Your task to perform on an android device: open sync settings in chrome Image 0: 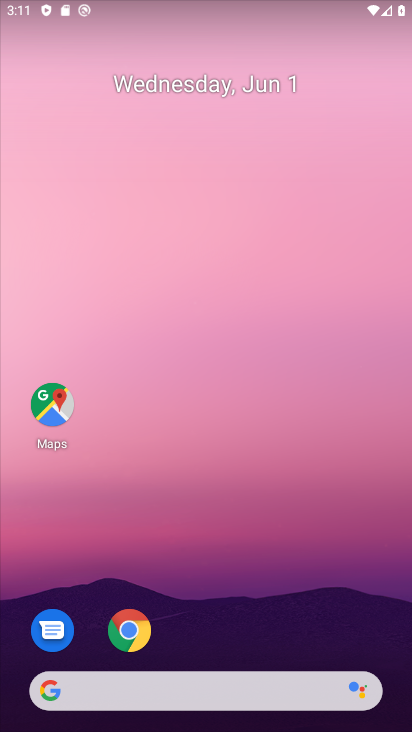
Step 0: press home button
Your task to perform on an android device: open sync settings in chrome Image 1: 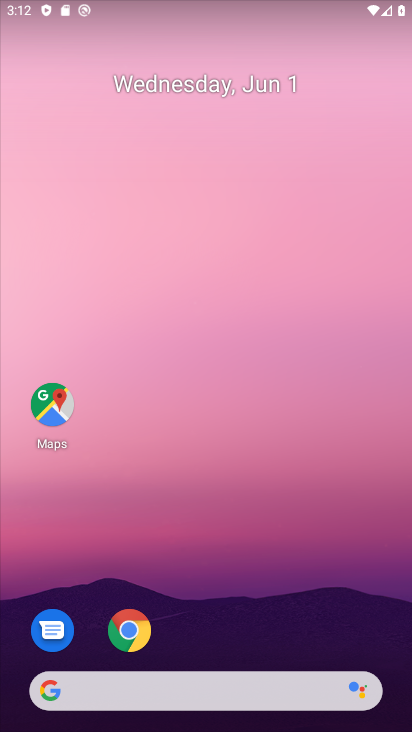
Step 1: click (133, 637)
Your task to perform on an android device: open sync settings in chrome Image 2: 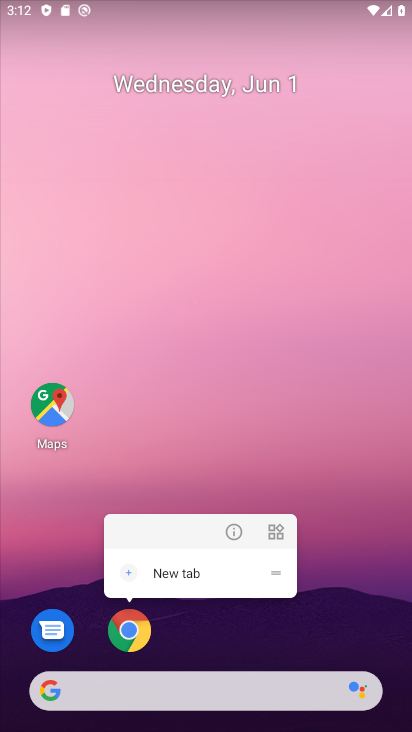
Step 2: click (133, 631)
Your task to perform on an android device: open sync settings in chrome Image 3: 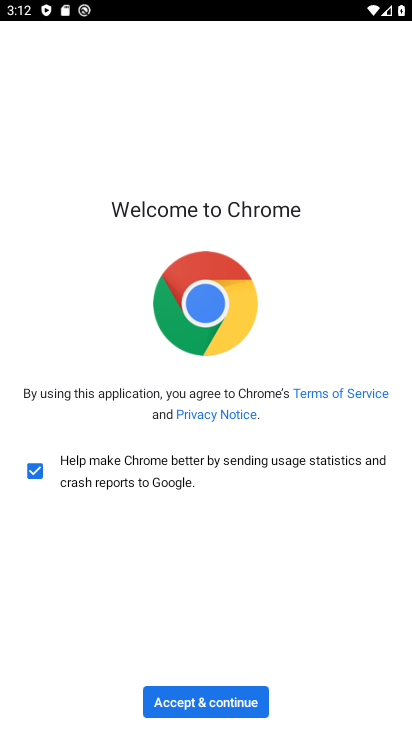
Step 3: click (195, 709)
Your task to perform on an android device: open sync settings in chrome Image 4: 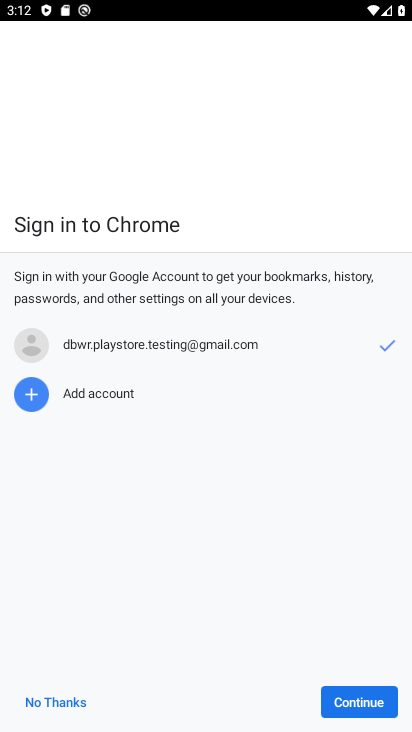
Step 4: click (366, 693)
Your task to perform on an android device: open sync settings in chrome Image 5: 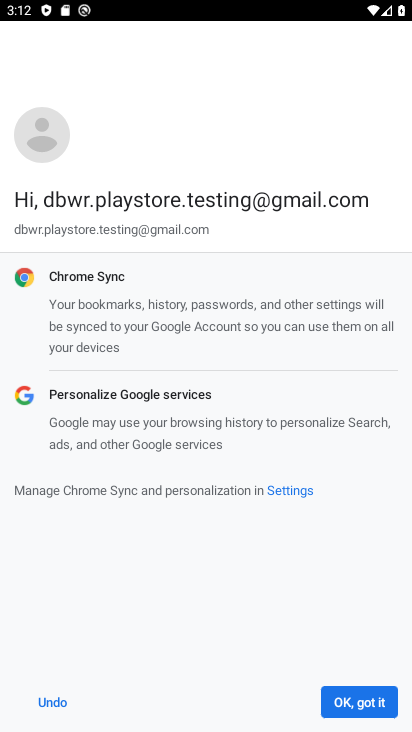
Step 5: click (363, 699)
Your task to perform on an android device: open sync settings in chrome Image 6: 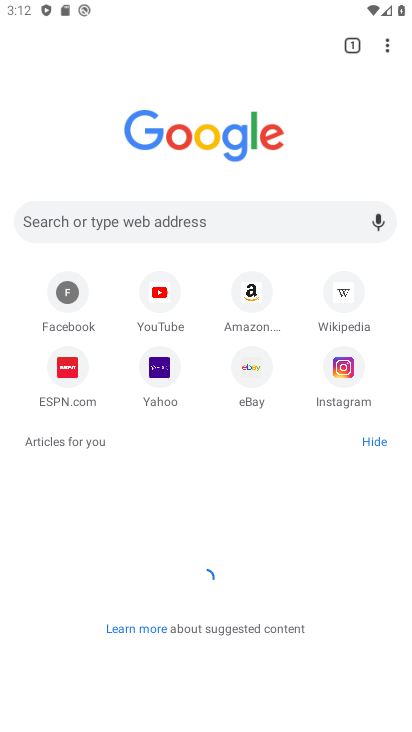
Step 6: drag from (388, 47) to (218, 382)
Your task to perform on an android device: open sync settings in chrome Image 7: 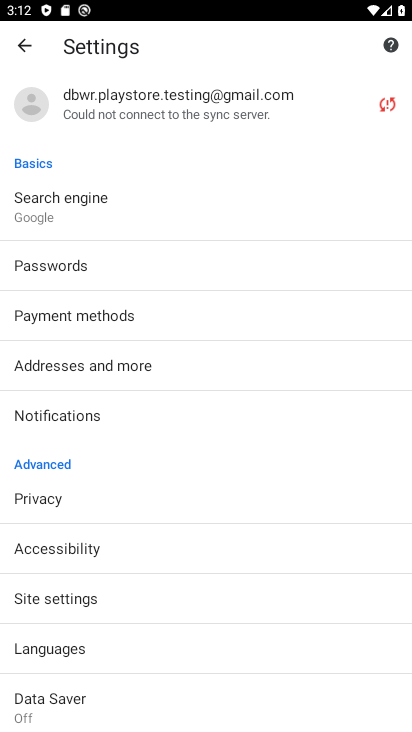
Step 7: click (179, 98)
Your task to perform on an android device: open sync settings in chrome Image 8: 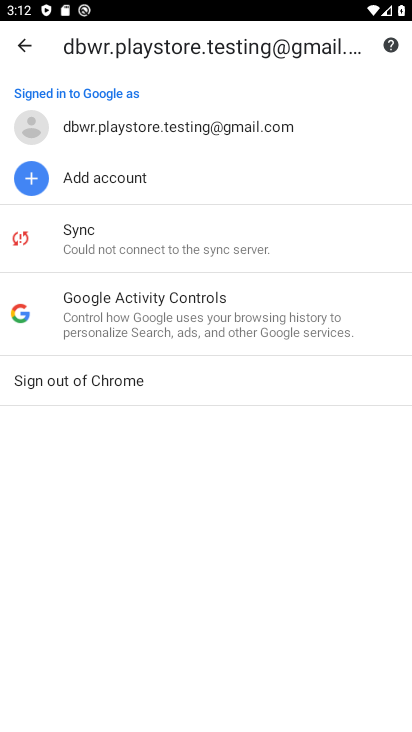
Step 8: click (93, 238)
Your task to perform on an android device: open sync settings in chrome Image 9: 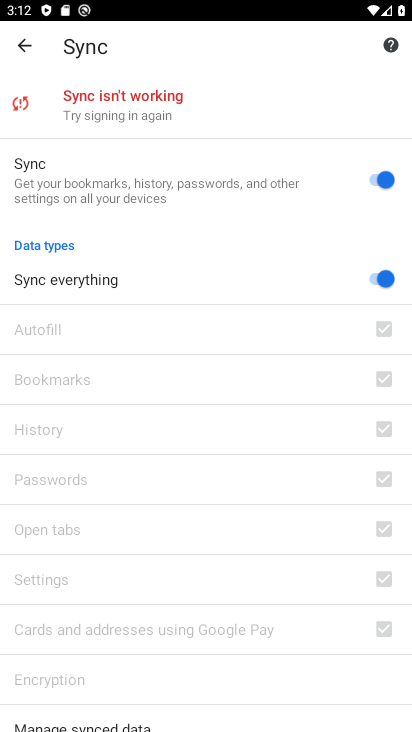
Step 9: task complete